Your task to perform on an android device: see creations saved in the google photos Image 0: 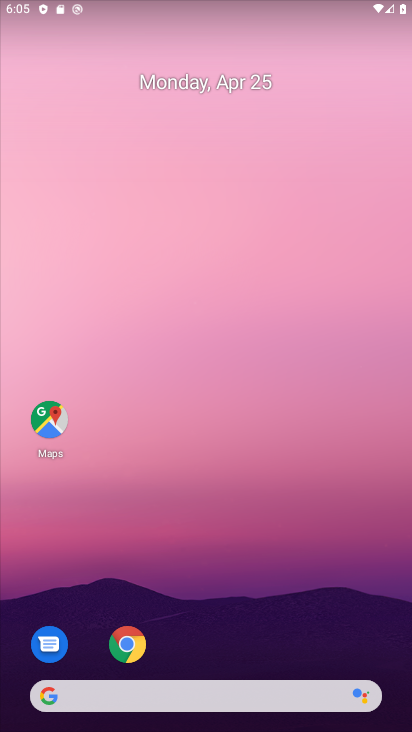
Step 0: drag from (221, 472) to (187, 23)
Your task to perform on an android device: see creations saved in the google photos Image 1: 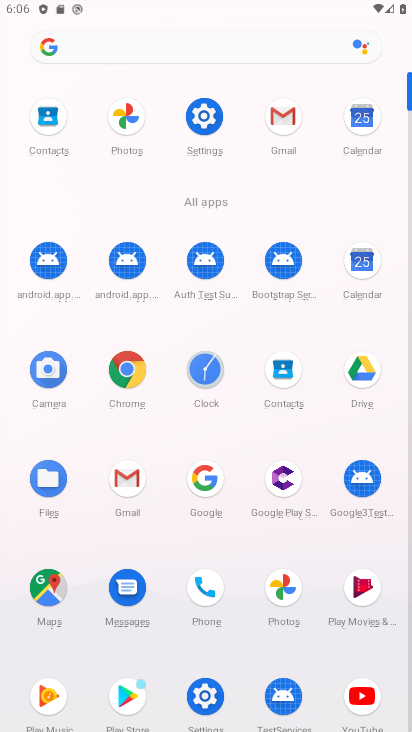
Step 1: click (288, 571)
Your task to perform on an android device: see creations saved in the google photos Image 2: 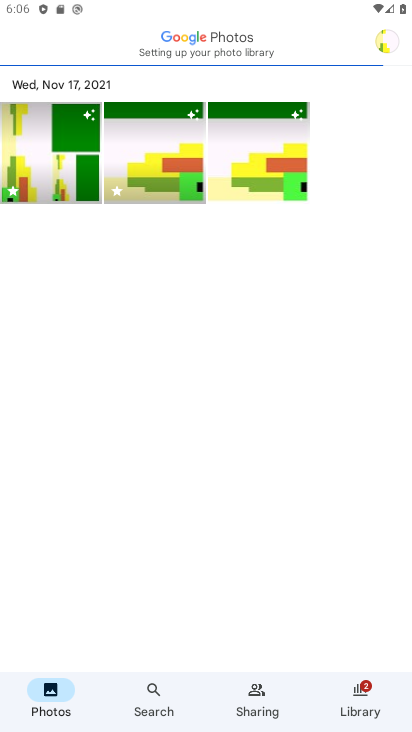
Step 2: click (155, 695)
Your task to perform on an android device: see creations saved in the google photos Image 3: 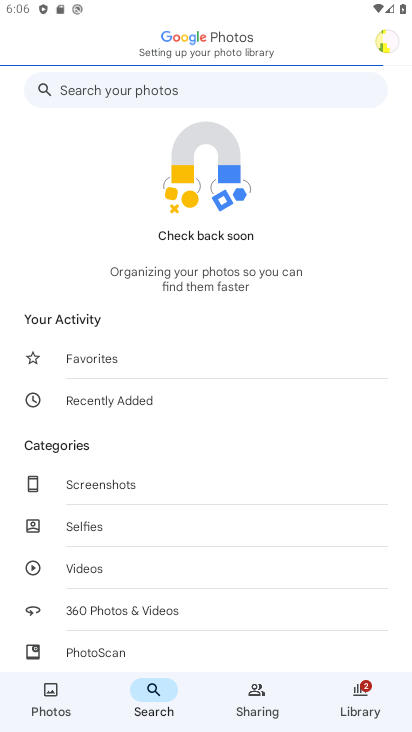
Step 3: drag from (211, 558) to (215, 346)
Your task to perform on an android device: see creations saved in the google photos Image 4: 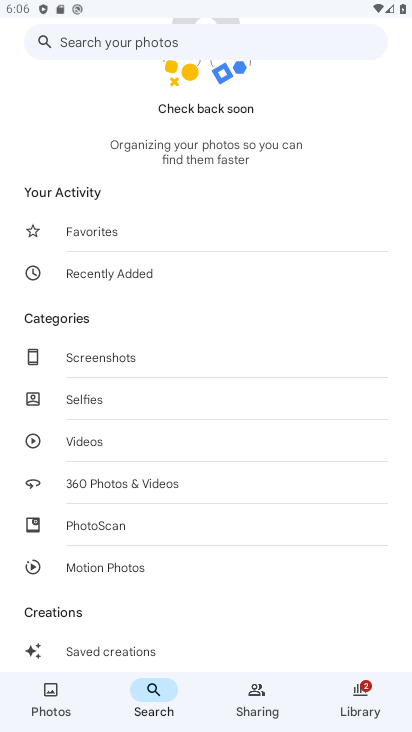
Step 4: click (145, 646)
Your task to perform on an android device: see creations saved in the google photos Image 5: 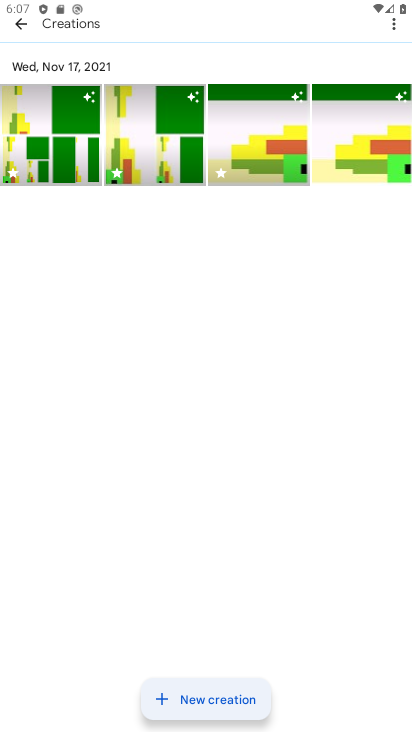
Step 5: task complete